Your task to perform on an android device: remove spam from my inbox in the gmail app Image 0: 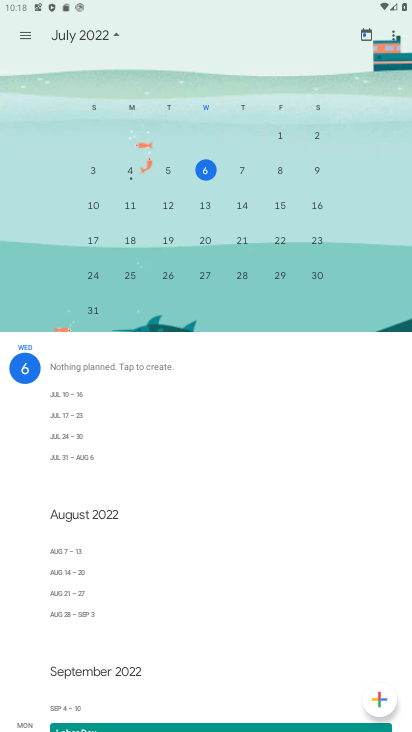
Step 0: drag from (187, 613) to (188, 281)
Your task to perform on an android device: remove spam from my inbox in the gmail app Image 1: 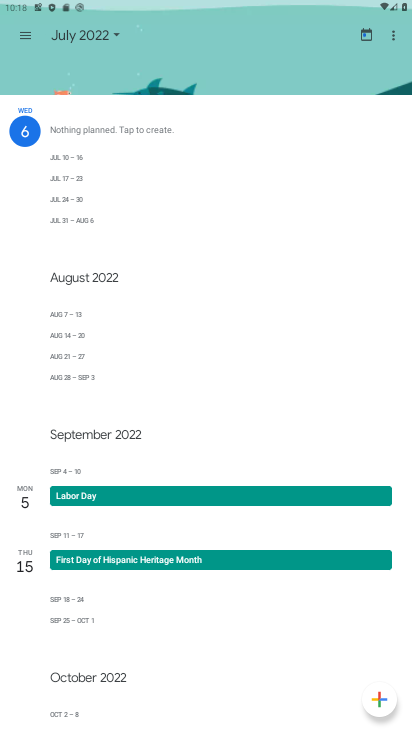
Step 1: press home button
Your task to perform on an android device: remove spam from my inbox in the gmail app Image 2: 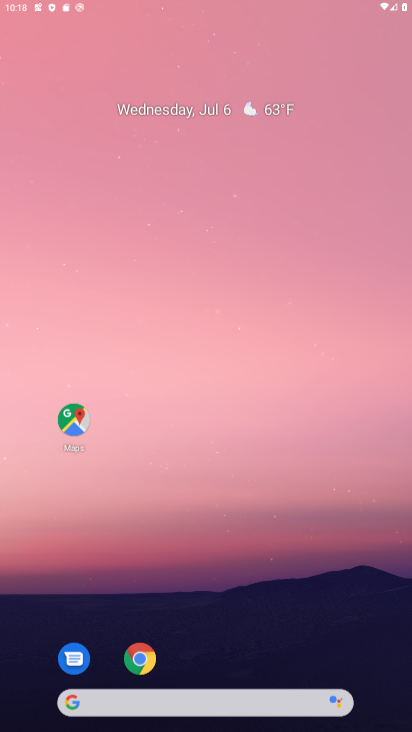
Step 2: drag from (239, 644) to (215, 153)
Your task to perform on an android device: remove spam from my inbox in the gmail app Image 3: 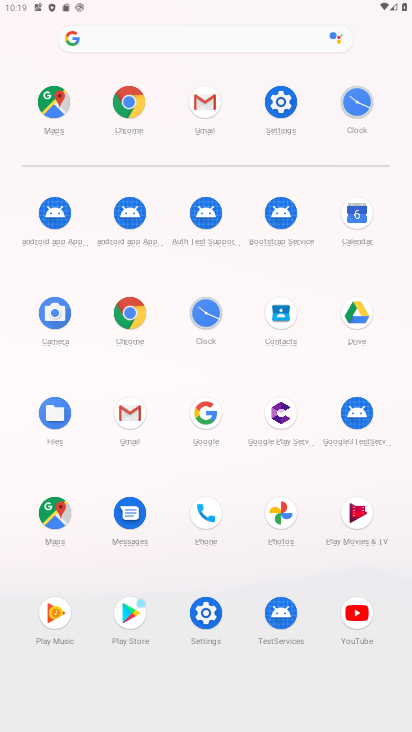
Step 3: click (129, 403)
Your task to perform on an android device: remove spam from my inbox in the gmail app Image 4: 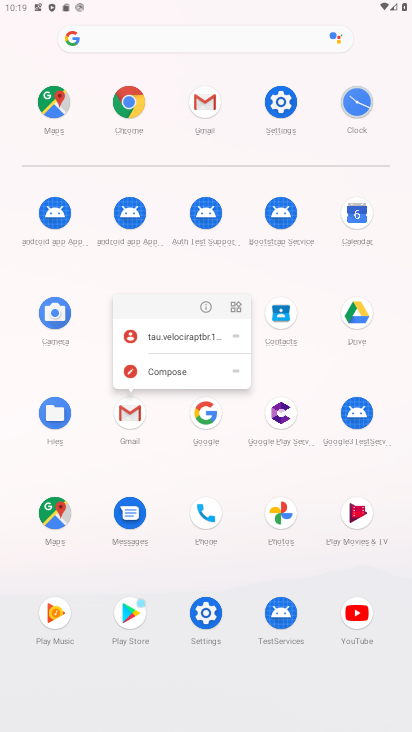
Step 4: click (203, 306)
Your task to perform on an android device: remove spam from my inbox in the gmail app Image 5: 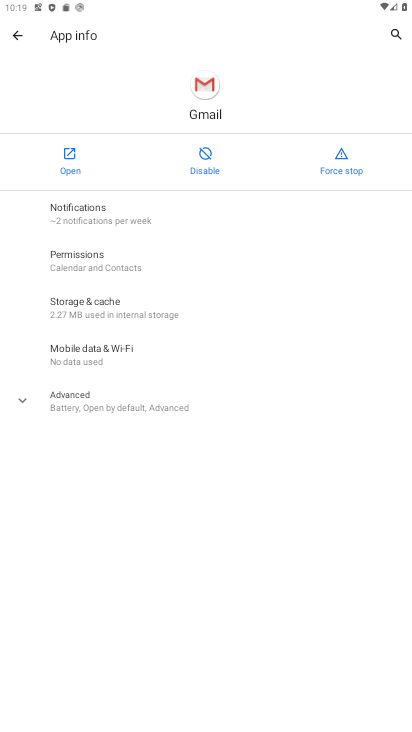
Step 5: click (72, 164)
Your task to perform on an android device: remove spam from my inbox in the gmail app Image 6: 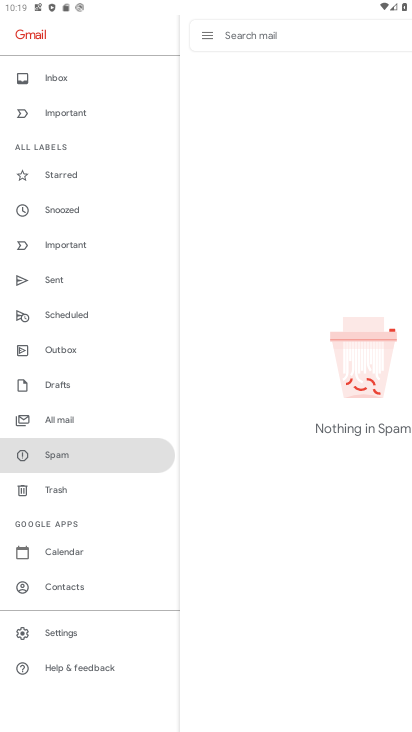
Step 6: drag from (71, 456) to (108, 130)
Your task to perform on an android device: remove spam from my inbox in the gmail app Image 7: 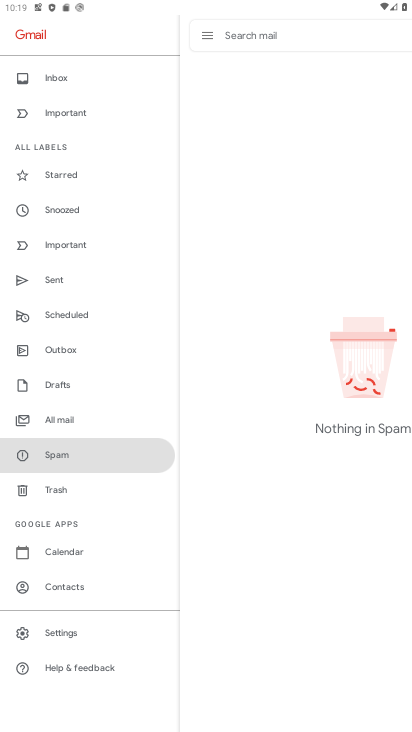
Step 7: click (33, 444)
Your task to perform on an android device: remove spam from my inbox in the gmail app Image 8: 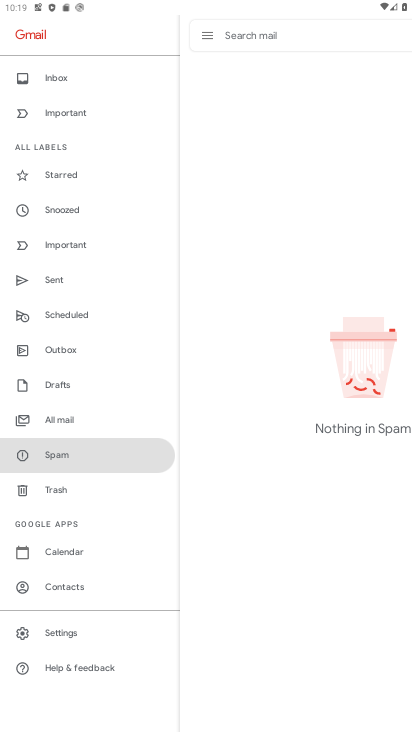
Step 8: click (33, 448)
Your task to perform on an android device: remove spam from my inbox in the gmail app Image 9: 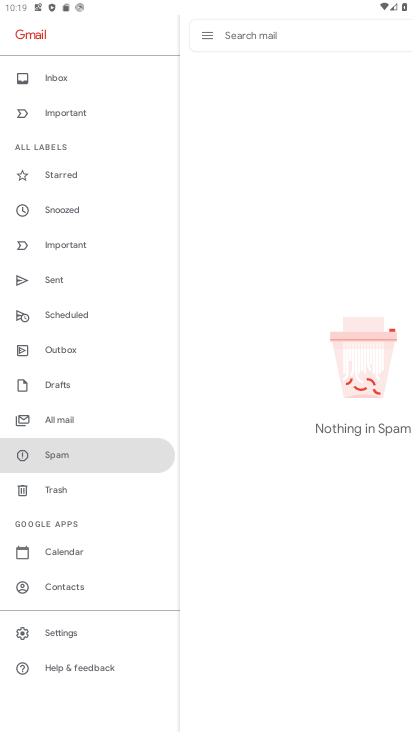
Step 9: drag from (269, 683) to (358, 207)
Your task to perform on an android device: remove spam from my inbox in the gmail app Image 10: 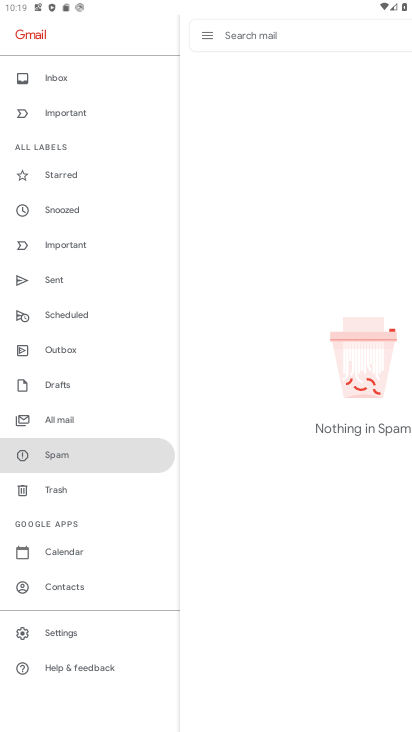
Step 10: click (56, 453)
Your task to perform on an android device: remove spam from my inbox in the gmail app Image 11: 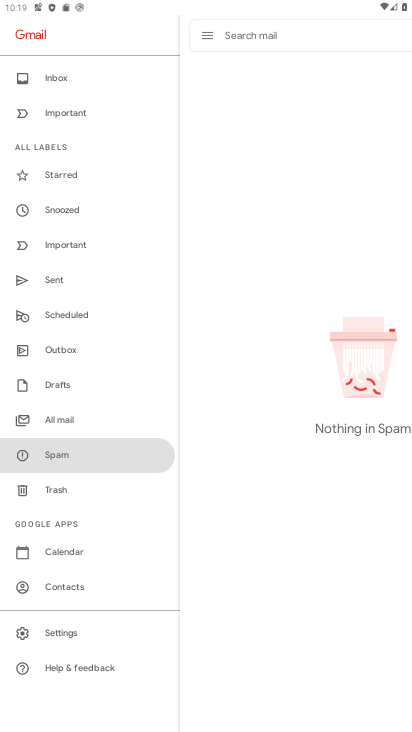
Step 11: task complete